Your task to perform on an android device: Open settings on Google Maps Image 0: 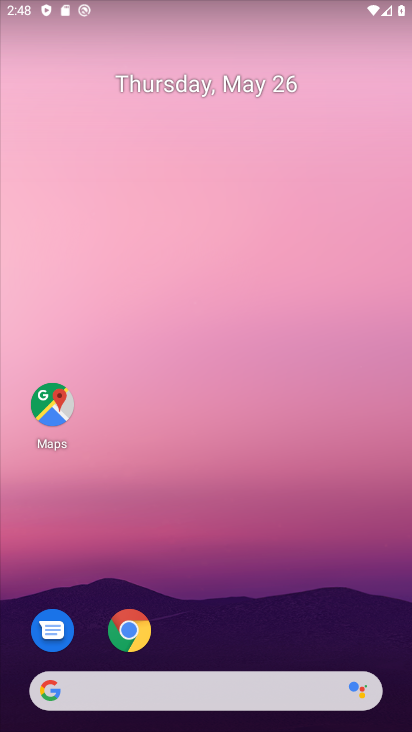
Step 0: click (51, 406)
Your task to perform on an android device: Open settings on Google Maps Image 1: 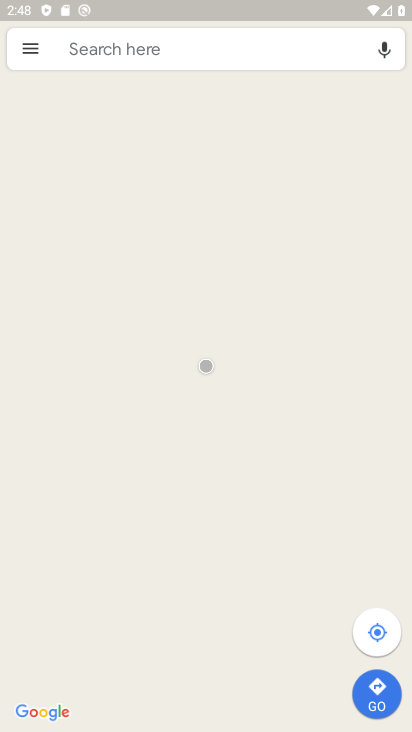
Step 1: click (28, 48)
Your task to perform on an android device: Open settings on Google Maps Image 2: 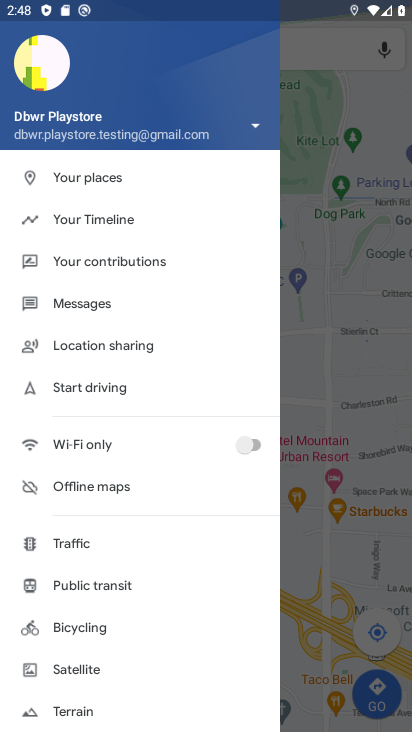
Step 2: drag from (112, 469) to (145, 397)
Your task to perform on an android device: Open settings on Google Maps Image 3: 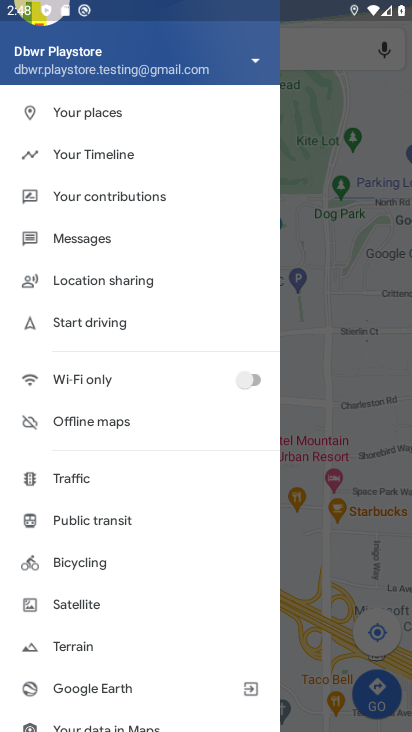
Step 3: drag from (87, 543) to (146, 470)
Your task to perform on an android device: Open settings on Google Maps Image 4: 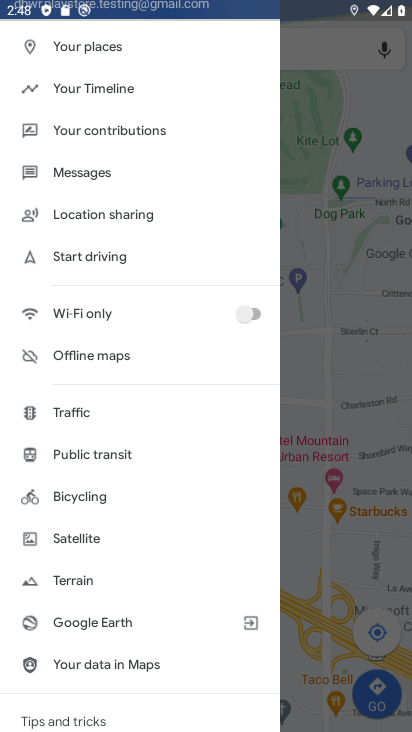
Step 4: drag from (82, 561) to (128, 485)
Your task to perform on an android device: Open settings on Google Maps Image 5: 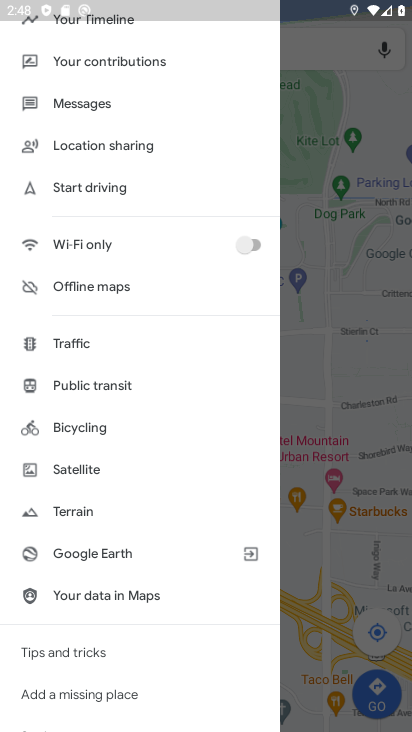
Step 5: drag from (77, 616) to (149, 523)
Your task to perform on an android device: Open settings on Google Maps Image 6: 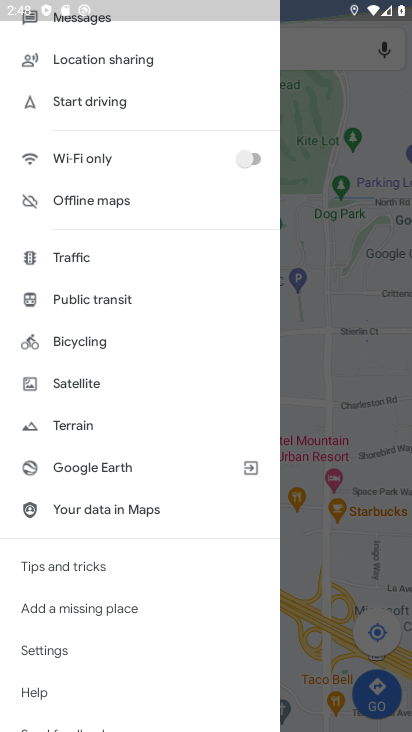
Step 6: click (41, 647)
Your task to perform on an android device: Open settings on Google Maps Image 7: 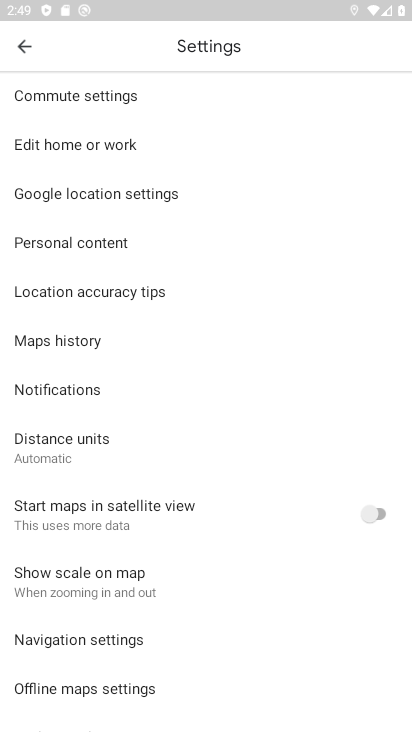
Step 7: task complete